Your task to perform on an android device: toggle notification dots Image 0: 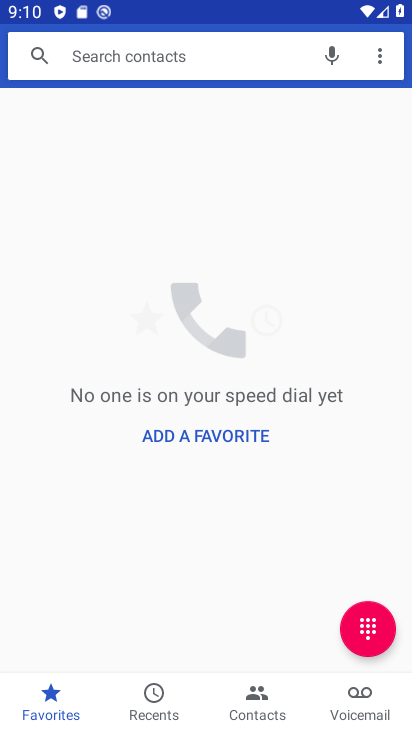
Step 0: press home button
Your task to perform on an android device: toggle notification dots Image 1: 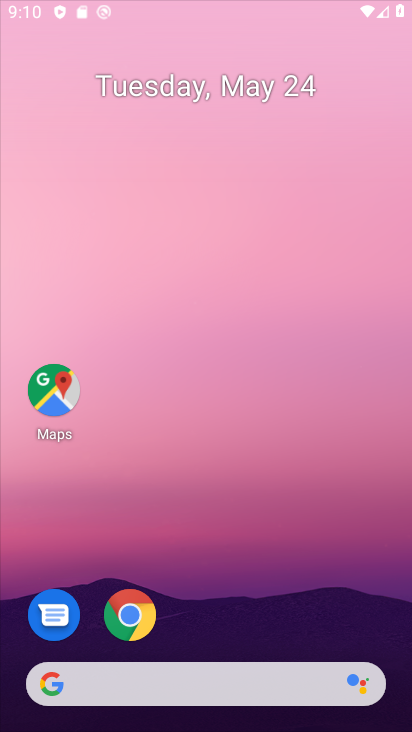
Step 1: click (199, 51)
Your task to perform on an android device: toggle notification dots Image 2: 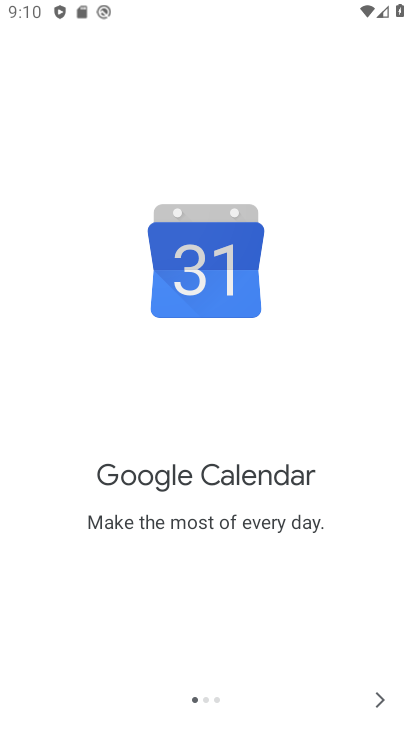
Step 2: press home button
Your task to perform on an android device: toggle notification dots Image 3: 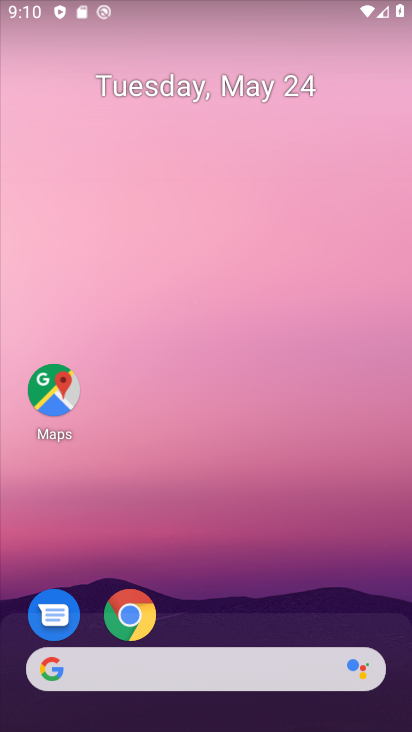
Step 3: drag from (225, 493) to (214, 41)
Your task to perform on an android device: toggle notification dots Image 4: 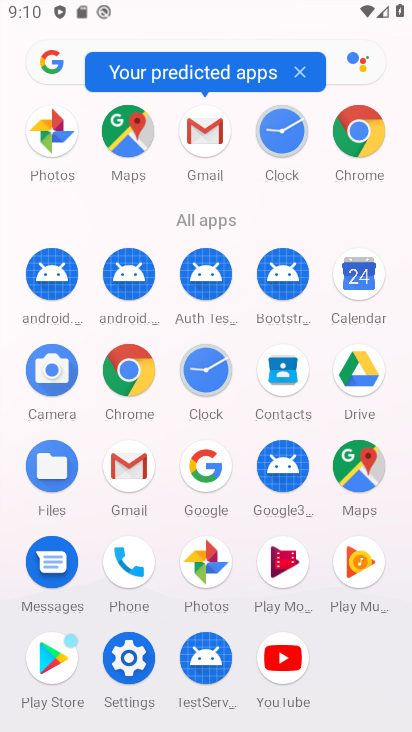
Step 4: click (118, 658)
Your task to perform on an android device: toggle notification dots Image 5: 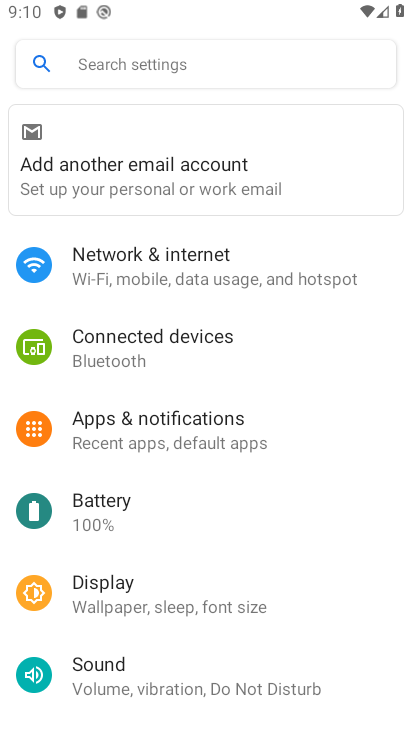
Step 5: click (190, 436)
Your task to perform on an android device: toggle notification dots Image 6: 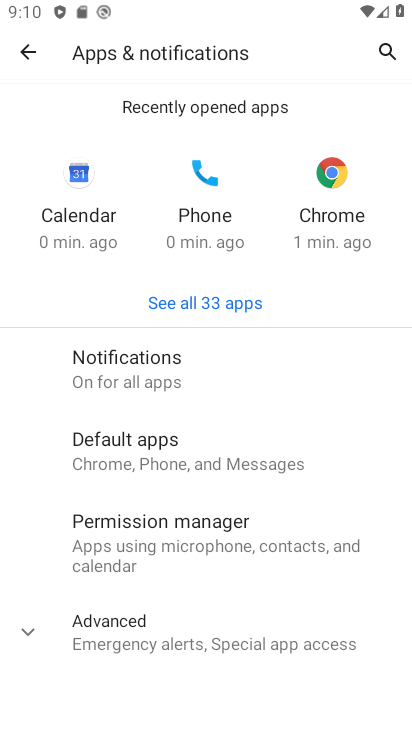
Step 6: click (175, 376)
Your task to perform on an android device: toggle notification dots Image 7: 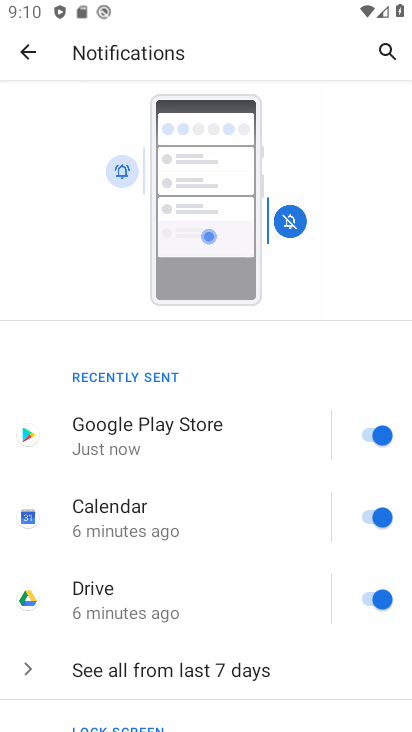
Step 7: drag from (235, 676) to (232, 282)
Your task to perform on an android device: toggle notification dots Image 8: 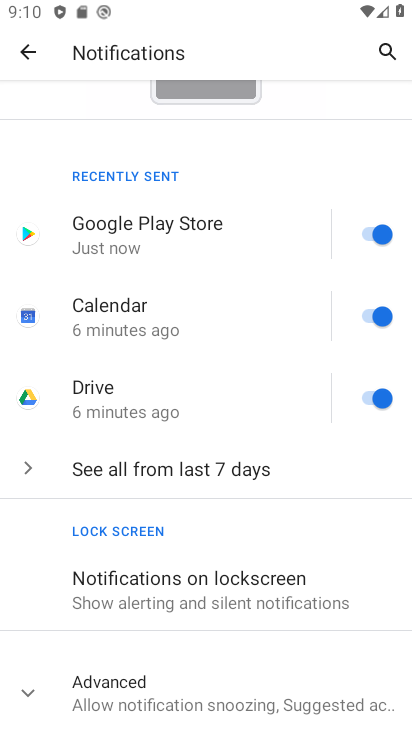
Step 8: click (150, 696)
Your task to perform on an android device: toggle notification dots Image 9: 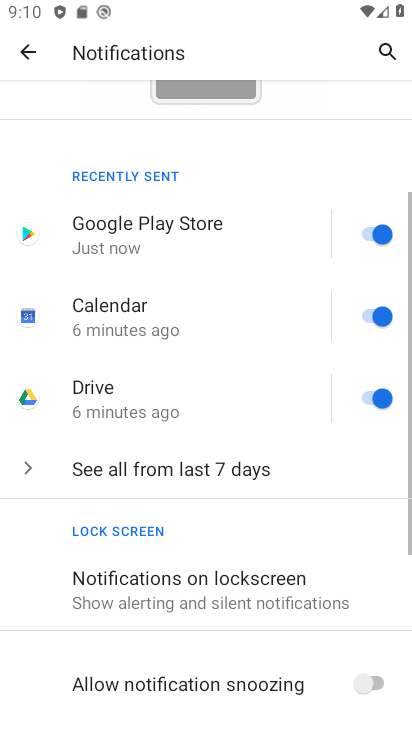
Step 9: drag from (150, 688) to (159, 260)
Your task to perform on an android device: toggle notification dots Image 10: 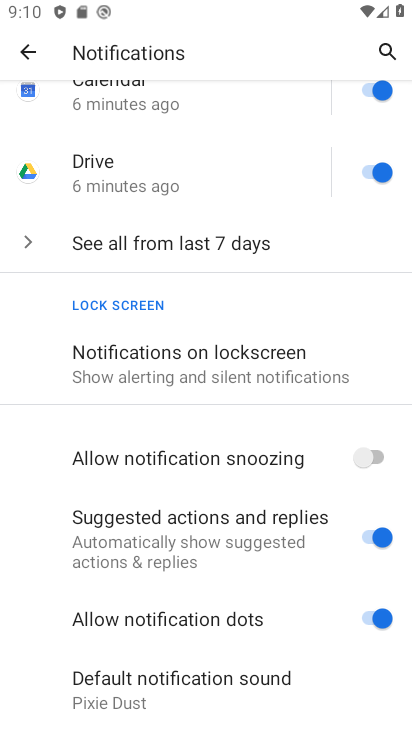
Step 10: click (267, 296)
Your task to perform on an android device: toggle notification dots Image 11: 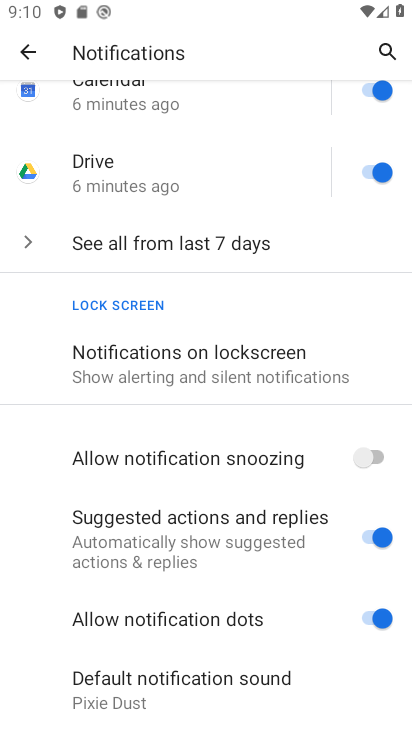
Step 11: click (383, 616)
Your task to perform on an android device: toggle notification dots Image 12: 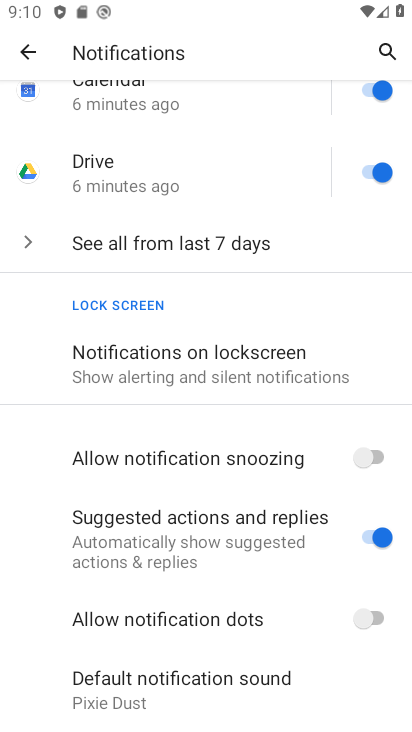
Step 12: task complete